Your task to perform on an android device: change your default location settings in chrome Image 0: 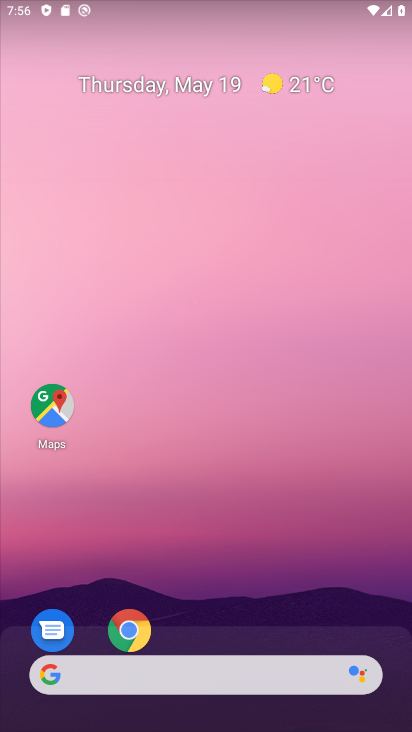
Step 0: drag from (309, 611) to (330, 40)
Your task to perform on an android device: change your default location settings in chrome Image 1: 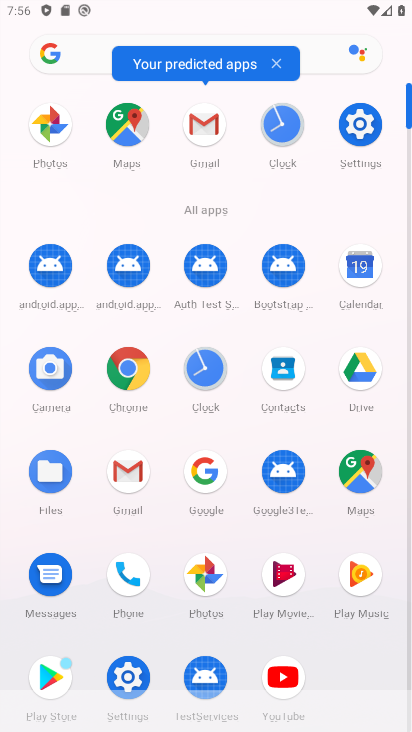
Step 1: click (131, 379)
Your task to perform on an android device: change your default location settings in chrome Image 2: 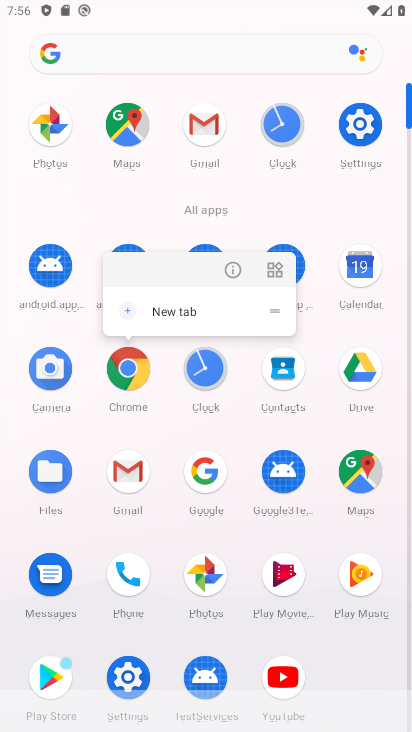
Step 2: click (131, 379)
Your task to perform on an android device: change your default location settings in chrome Image 3: 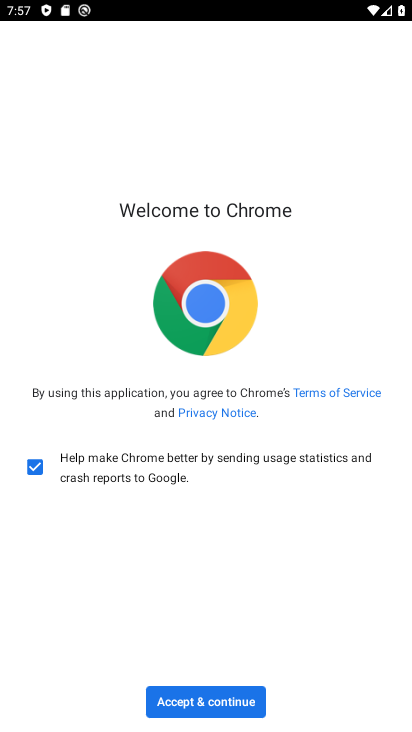
Step 3: click (223, 714)
Your task to perform on an android device: change your default location settings in chrome Image 4: 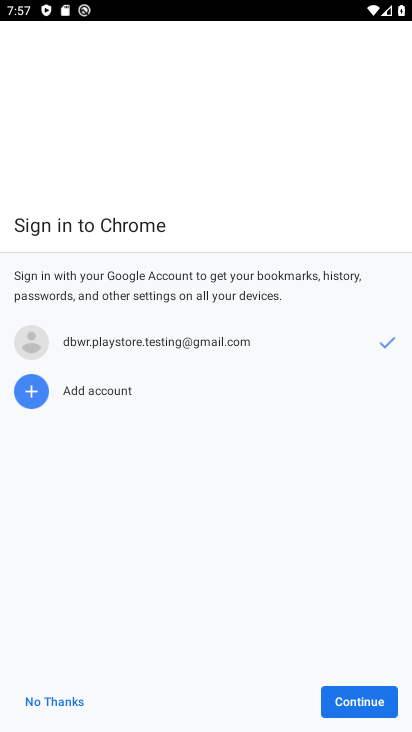
Step 4: click (62, 706)
Your task to perform on an android device: change your default location settings in chrome Image 5: 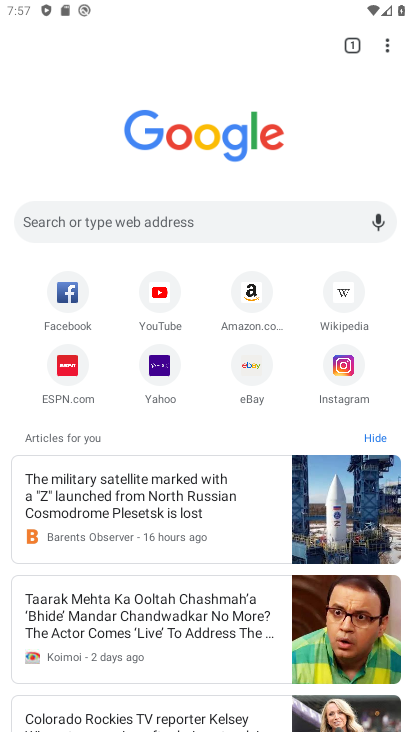
Step 5: drag from (388, 48) to (220, 388)
Your task to perform on an android device: change your default location settings in chrome Image 6: 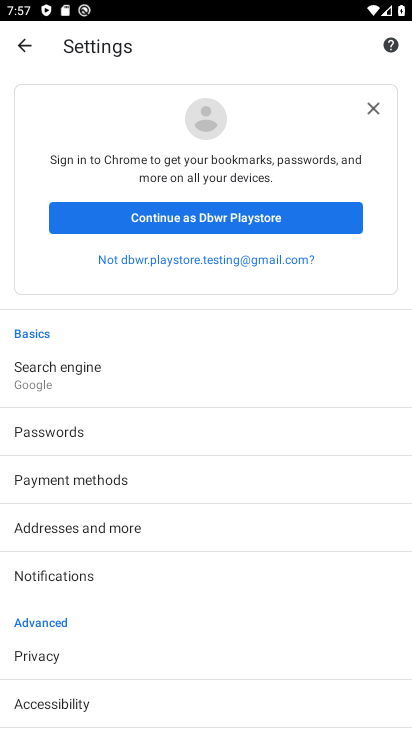
Step 6: drag from (159, 658) to (171, 248)
Your task to perform on an android device: change your default location settings in chrome Image 7: 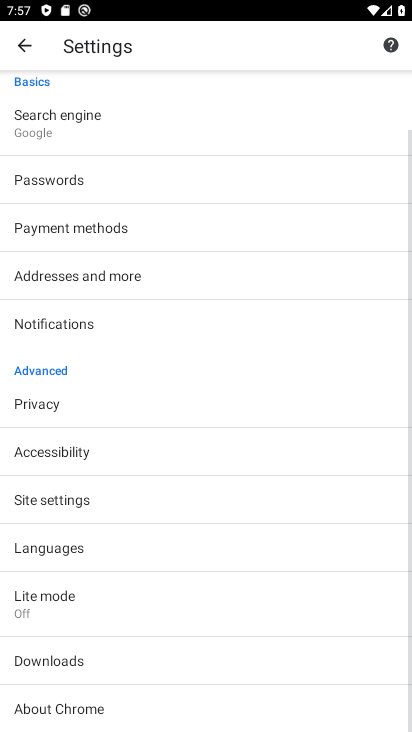
Step 7: click (92, 502)
Your task to perform on an android device: change your default location settings in chrome Image 8: 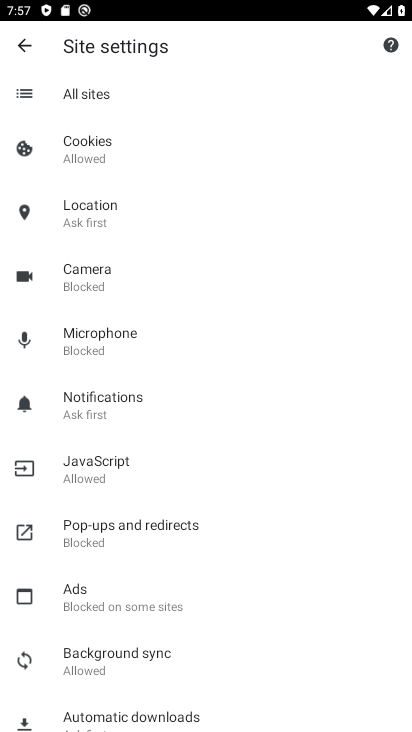
Step 8: click (107, 220)
Your task to perform on an android device: change your default location settings in chrome Image 9: 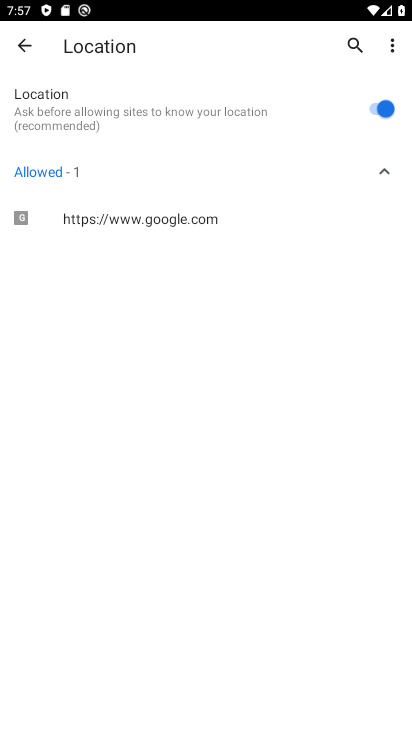
Step 9: click (376, 109)
Your task to perform on an android device: change your default location settings in chrome Image 10: 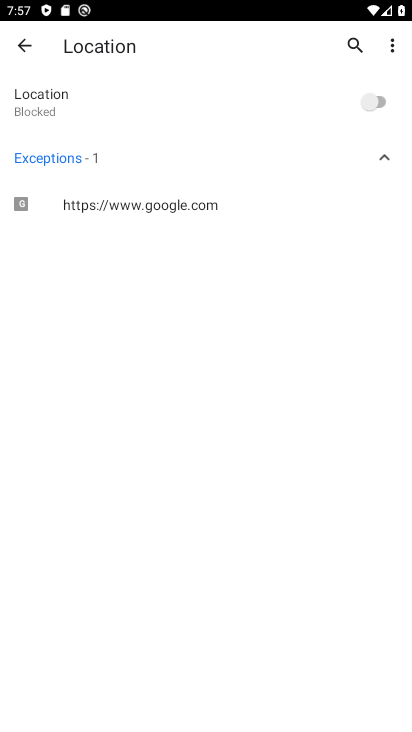
Step 10: task complete